Your task to perform on an android device: install app "Chime – Mobile Banking" Image 0: 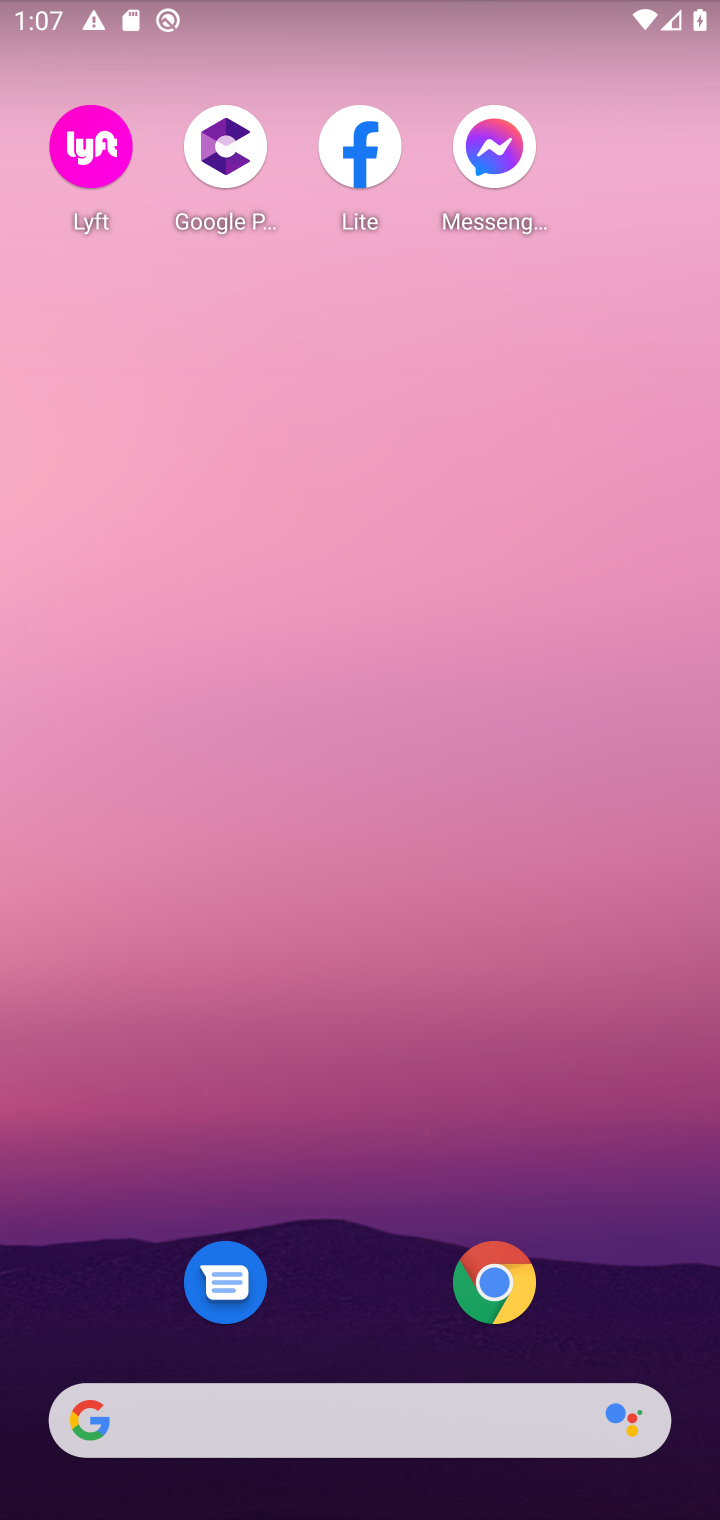
Step 0: drag from (391, 1377) to (235, 194)
Your task to perform on an android device: install app "Chime – Mobile Banking" Image 1: 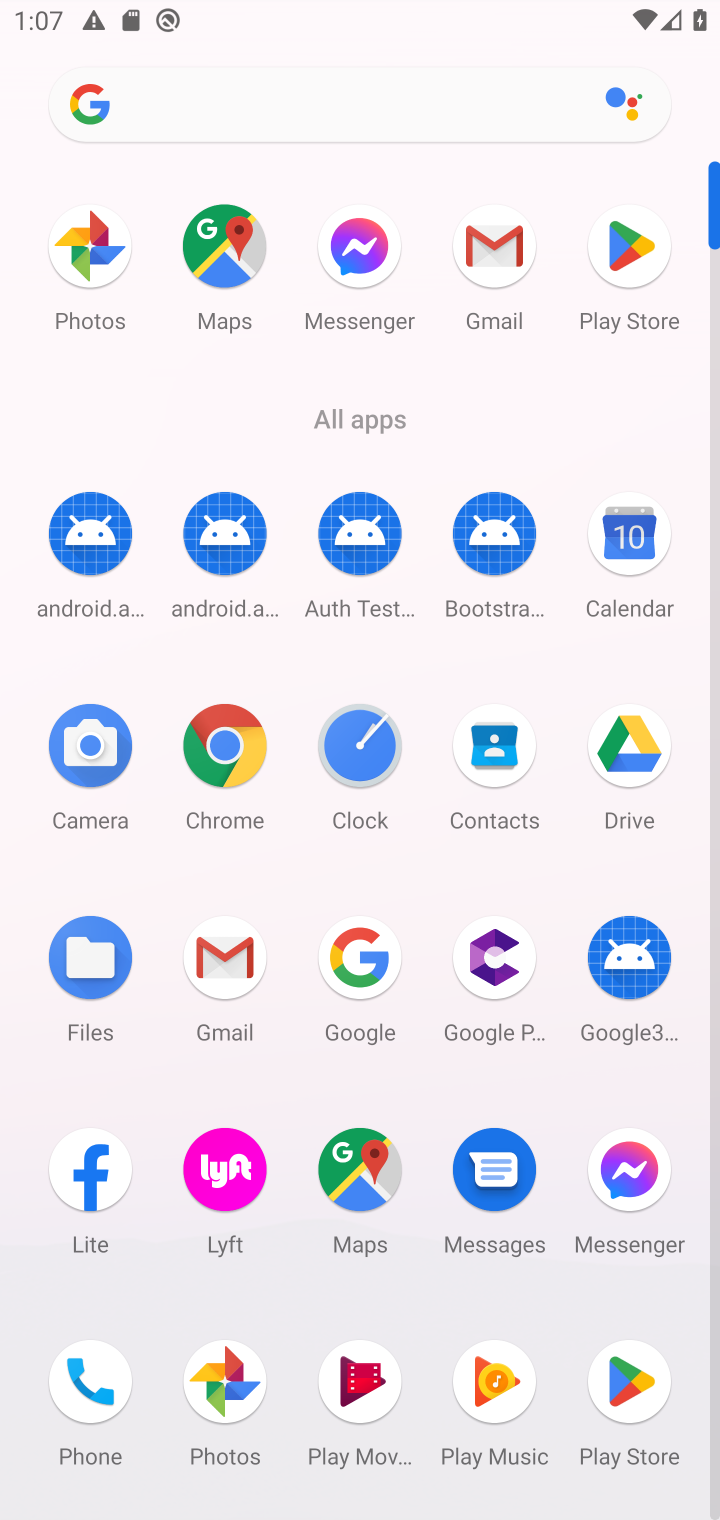
Step 1: click (644, 1398)
Your task to perform on an android device: install app "Chime – Mobile Banking" Image 2: 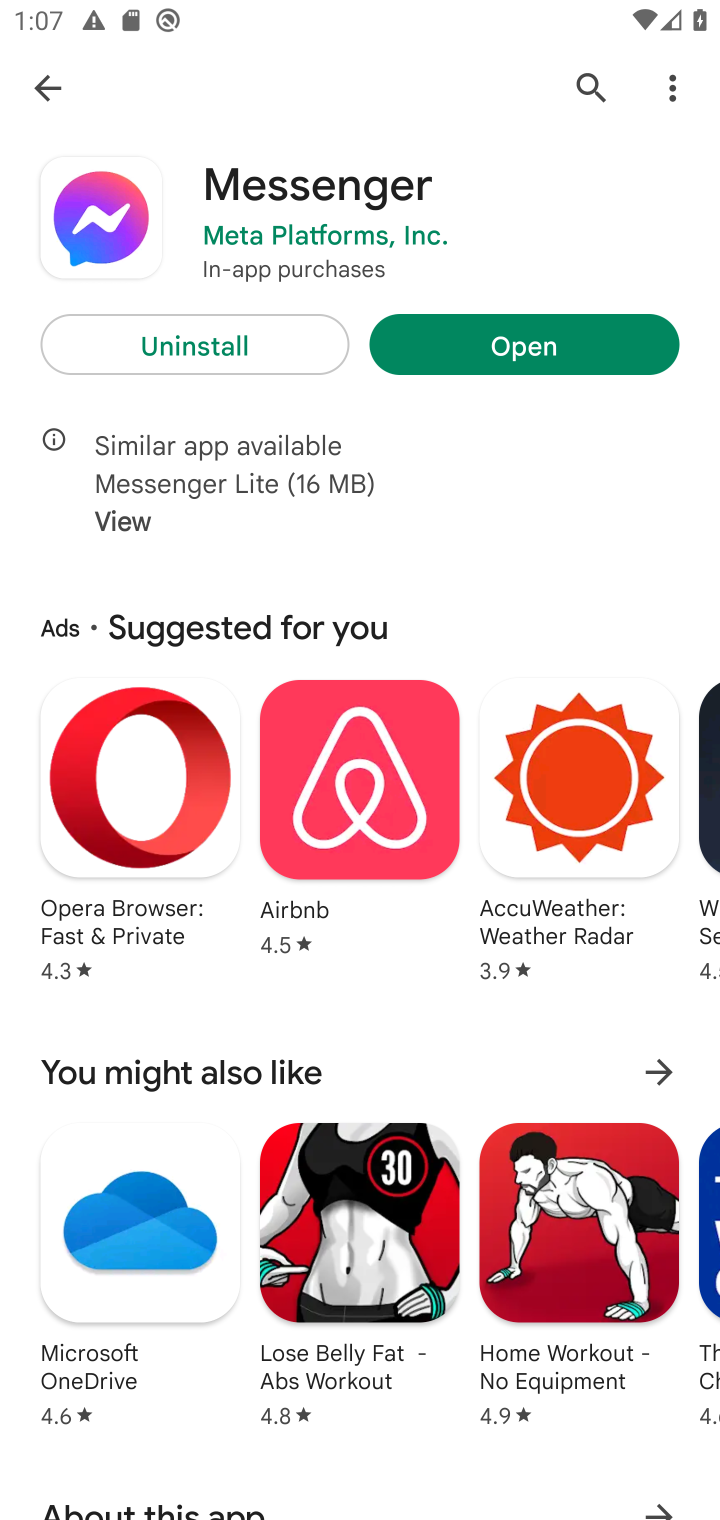
Step 2: click (34, 96)
Your task to perform on an android device: install app "Chime – Mobile Banking" Image 3: 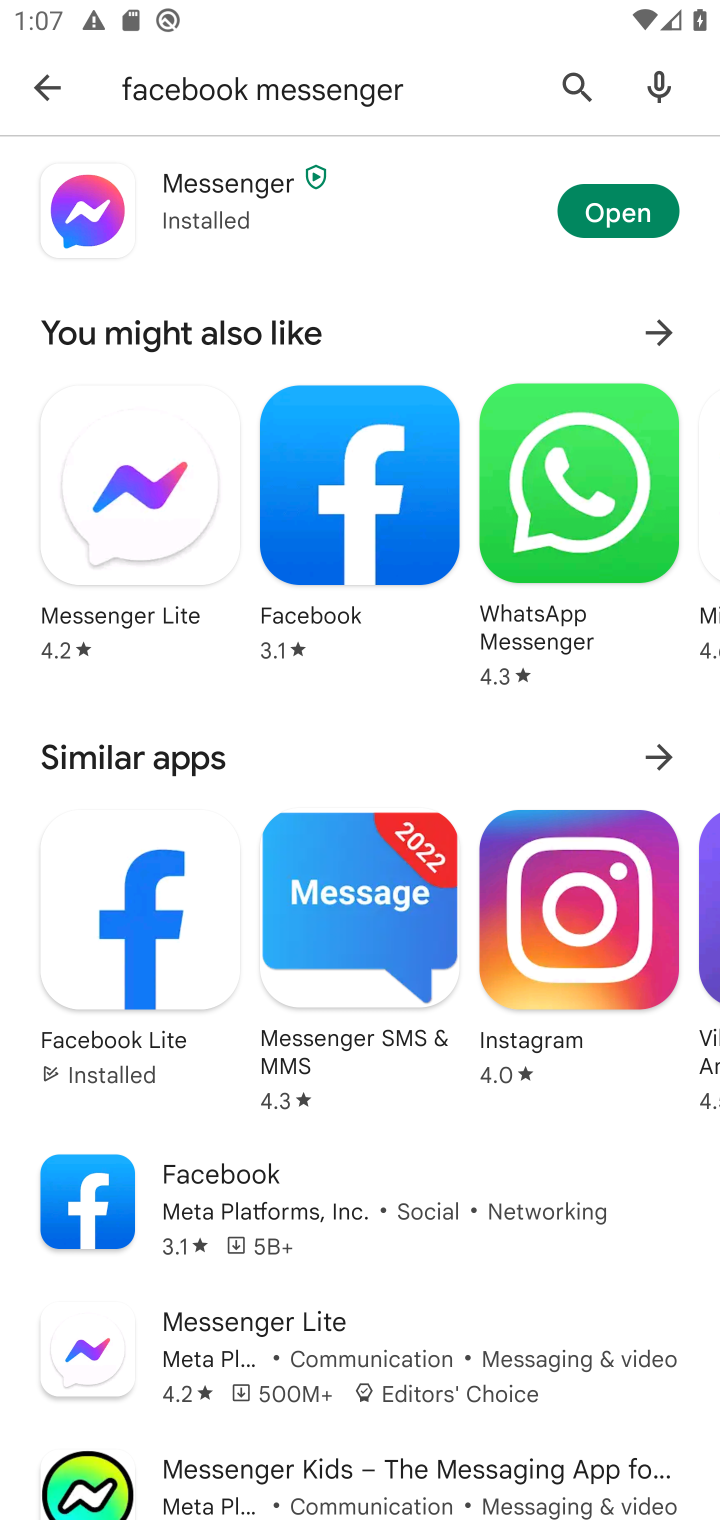
Step 3: click (570, 86)
Your task to perform on an android device: install app "Chime – Mobile Banking" Image 4: 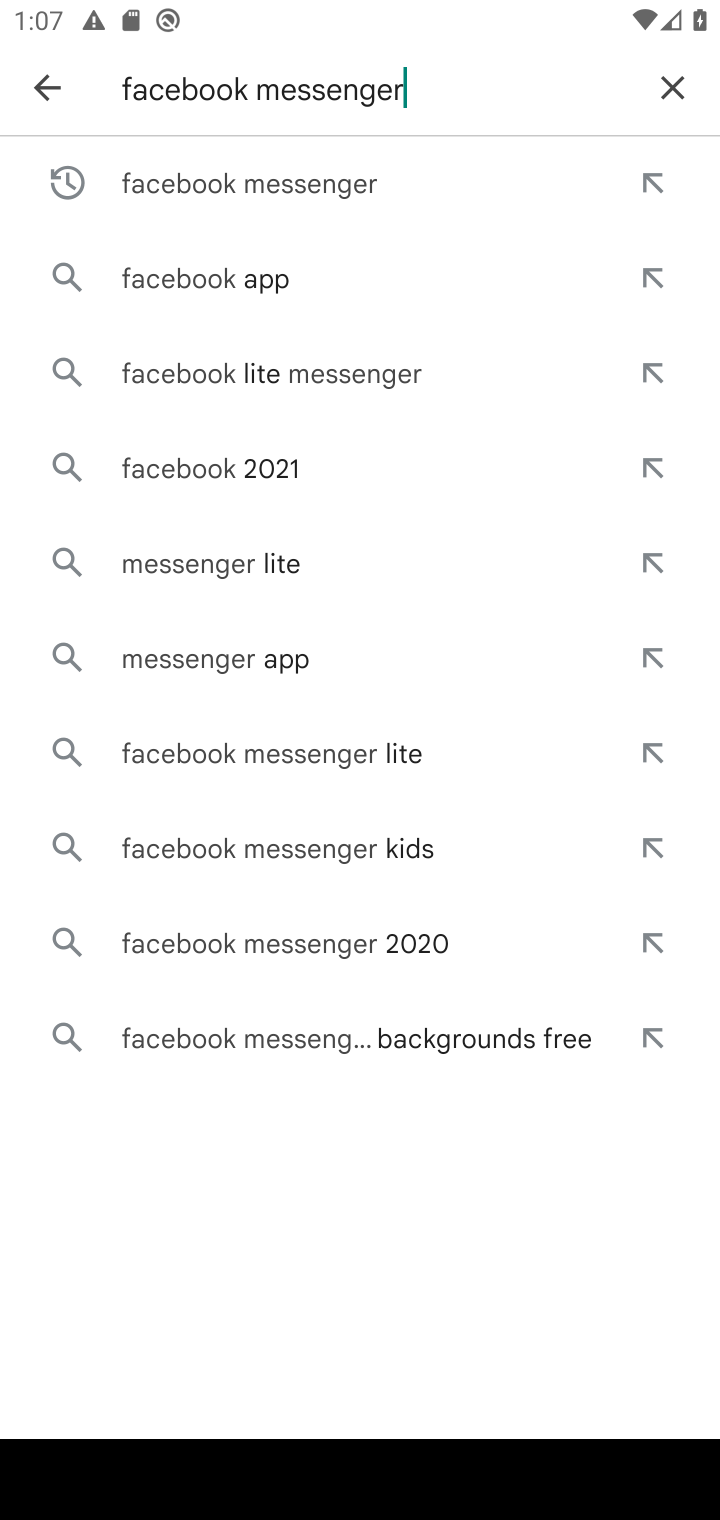
Step 4: click (666, 75)
Your task to perform on an android device: install app "Chime – Mobile Banking" Image 5: 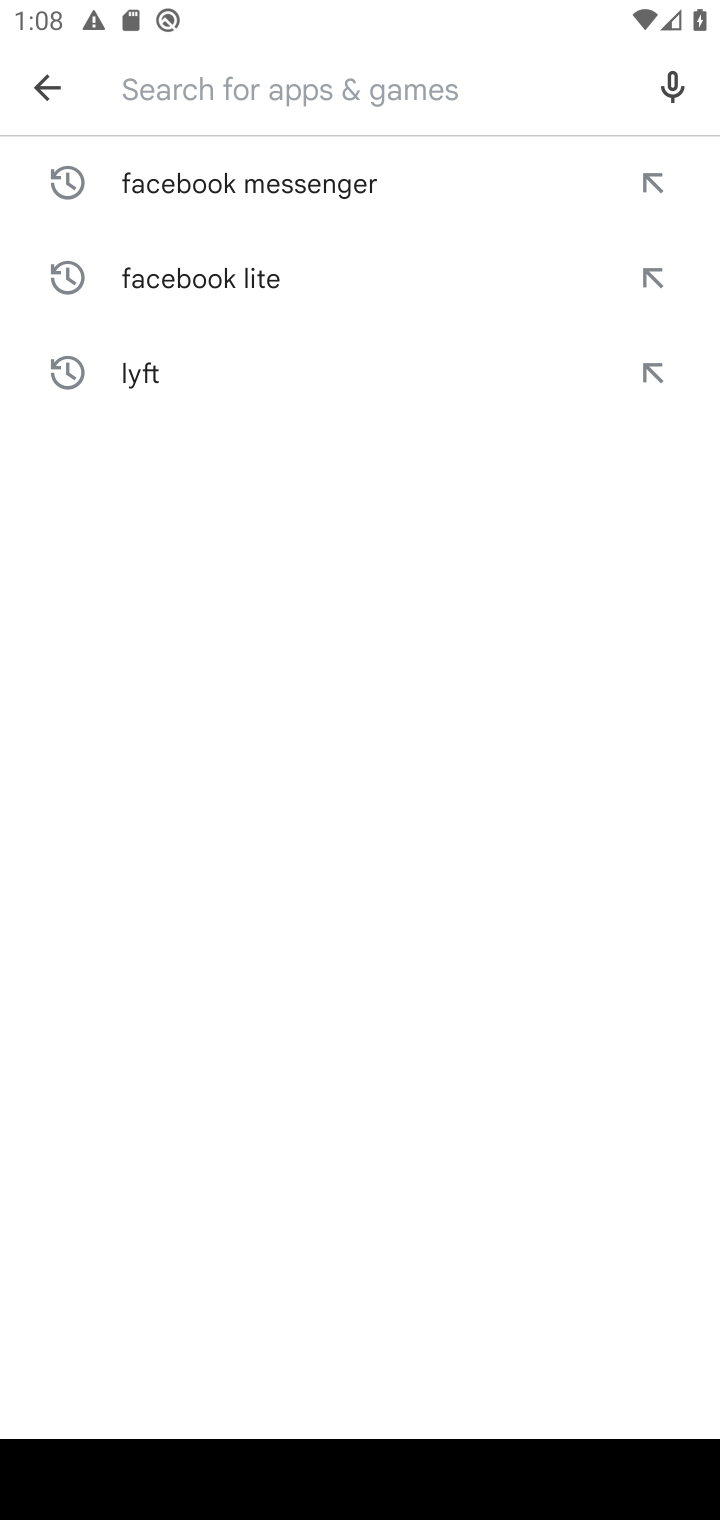
Step 5: type "Chime – Mobile Banking"
Your task to perform on an android device: install app "Chime – Mobile Banking" Image 6: 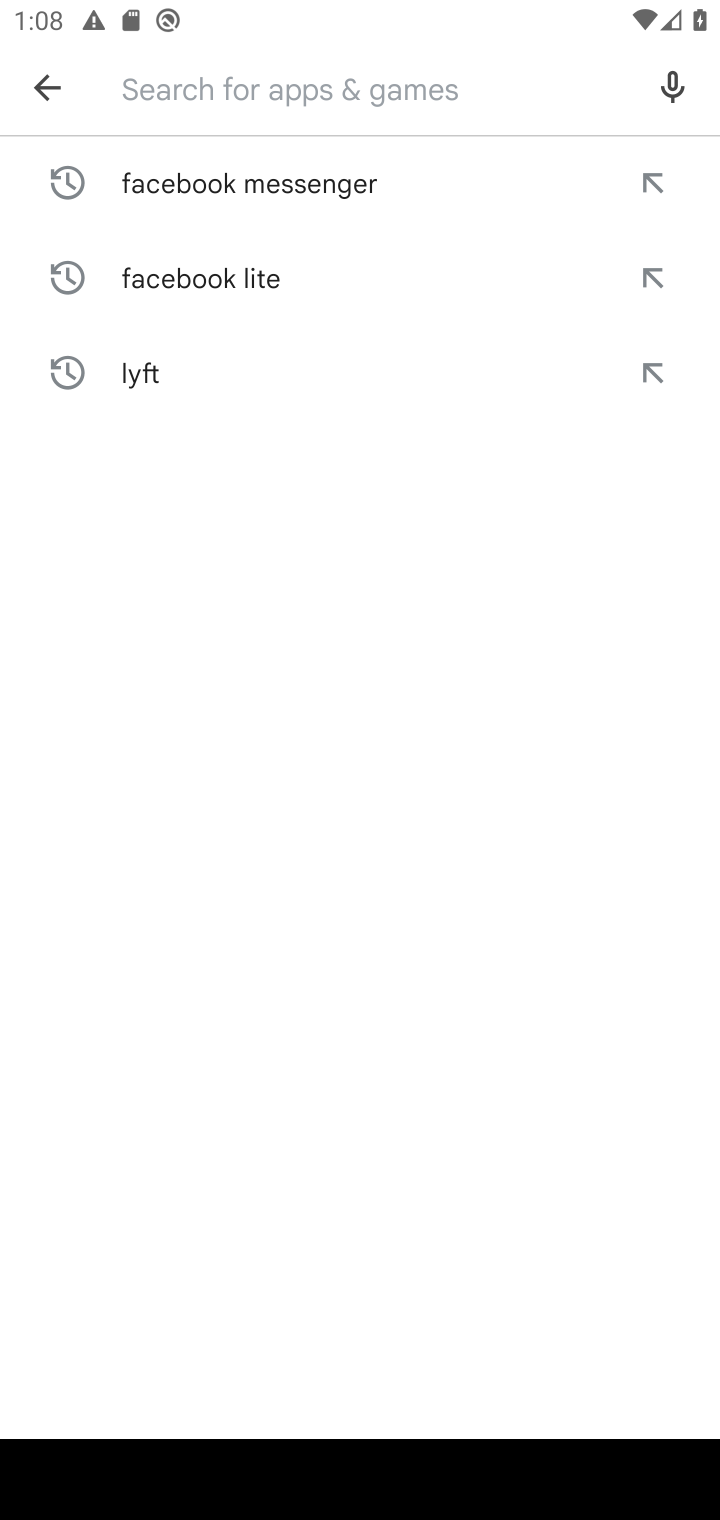
Step 6: type "Chime – Mobile Banking"
Your task to perform on an android device: install app "Chime – Mobile Banking" Image 7: 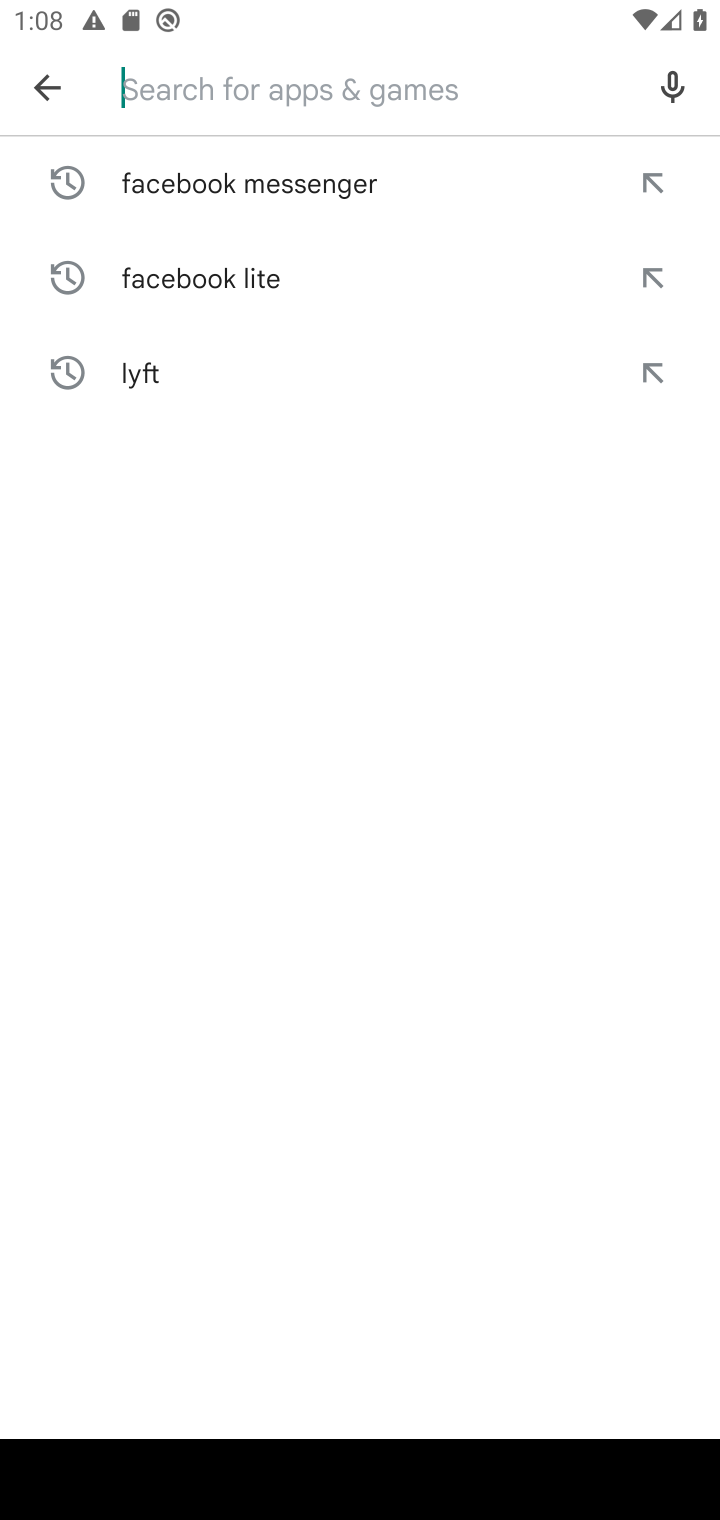
Step 7: type ""
Your task to perform on an android device: install app "Chime – Mobile Banking" Image 8: 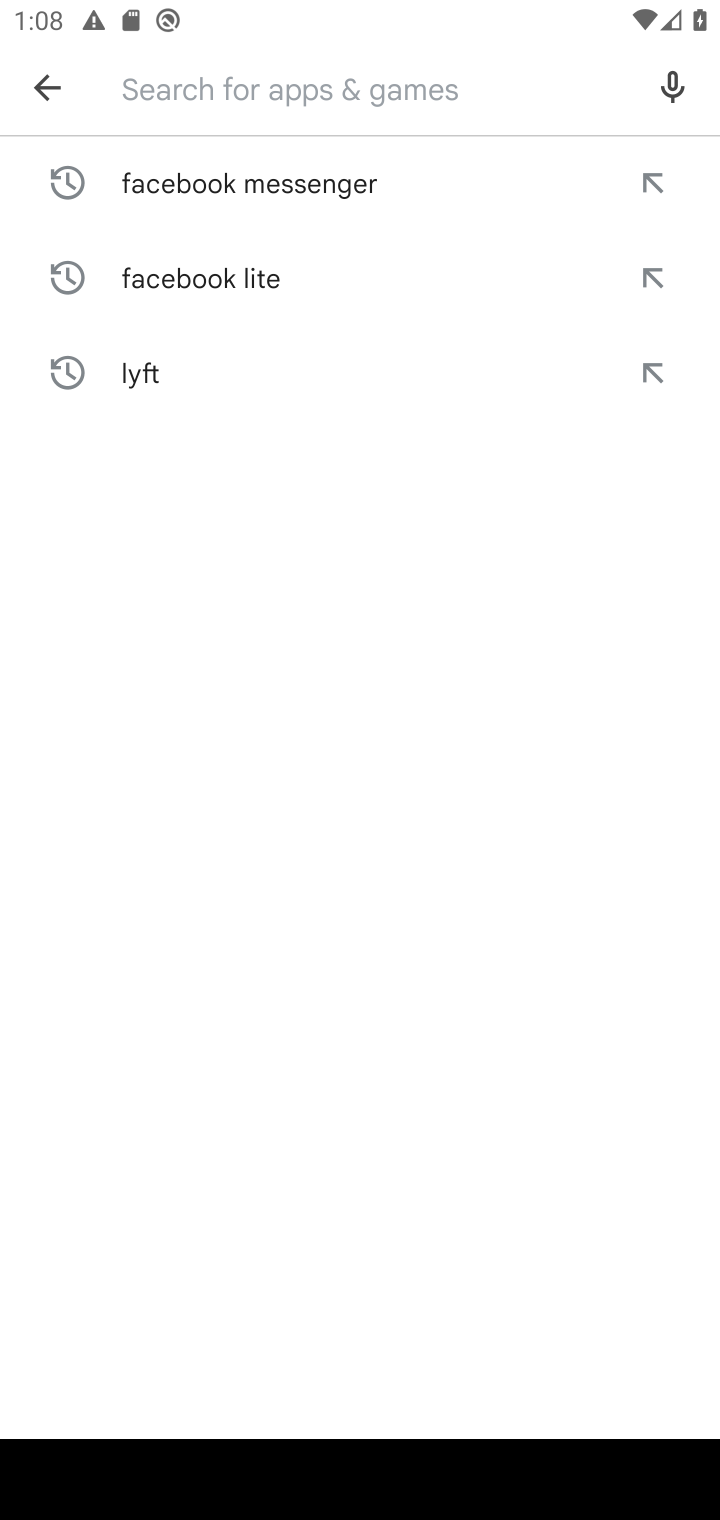
Step 8: task complete